Your task to perform on an android device: What's on my calendar tomorrow? Image 0: 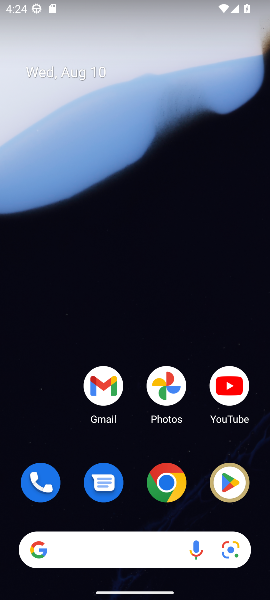
Step 0: drag from (151, 339) to (164, 50)
Your task to perform on an android device: What's on my calendar tomorrow? Image 1: 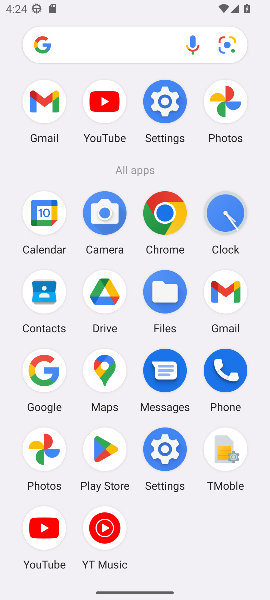
Step 1: click (47, 210)
Your task to perform on an android device: What's on my calendar tomorrow? Image 2: 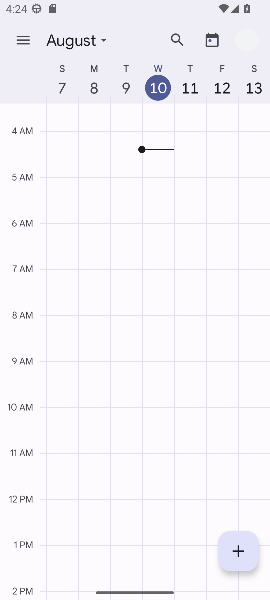
Step 2: task complete